Your task to perform on an android device: Open settings Image 0: 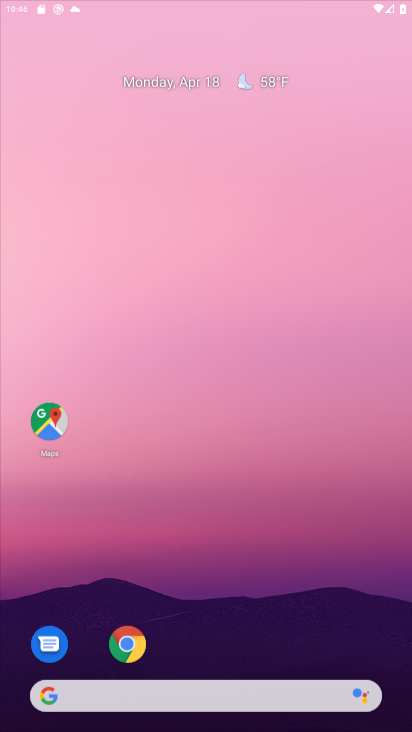
Step 0: drag from (214, 650) to (292, 237)
Your task to perform on an android device: Open settings Image 1: 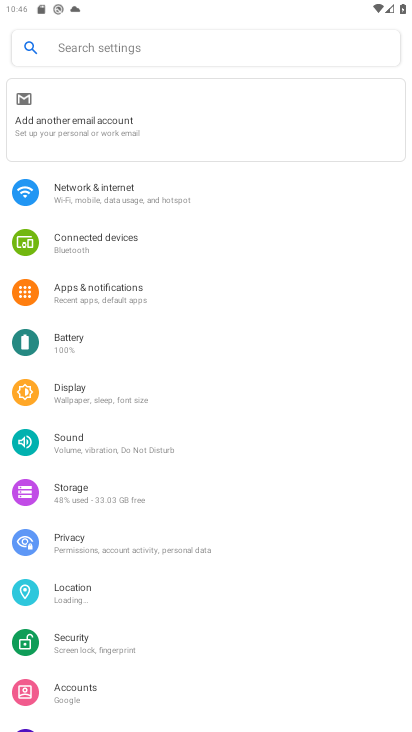
Step 1: press home button
Your task to perform on an android device: Open settings Image 2: 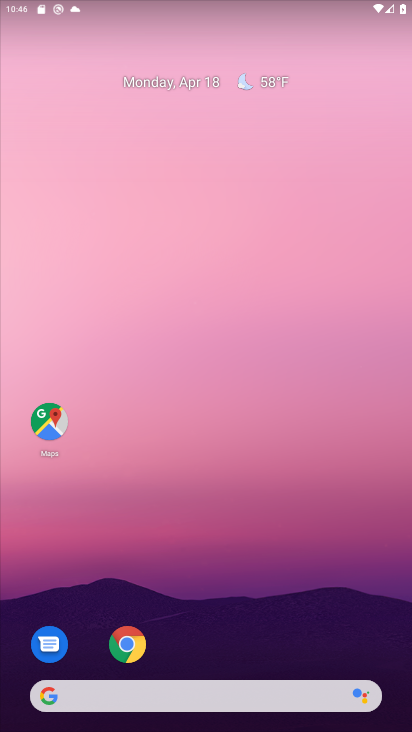
Step 2: drag from (212, 617) to (236, 165)
Your task to perform on an android device: Open settings Image 3: 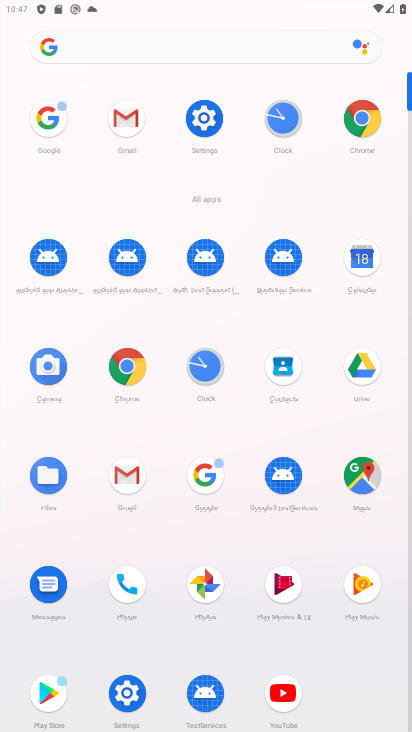
Step 3: click (135, 700)
Your task to perform on an android device: Open settings Image 4: 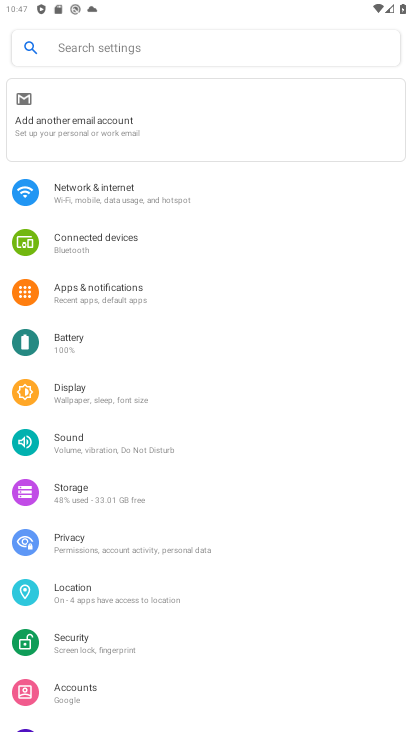
Step 4: task complete